Your task to perform on an android device: Open network settings Image 0: 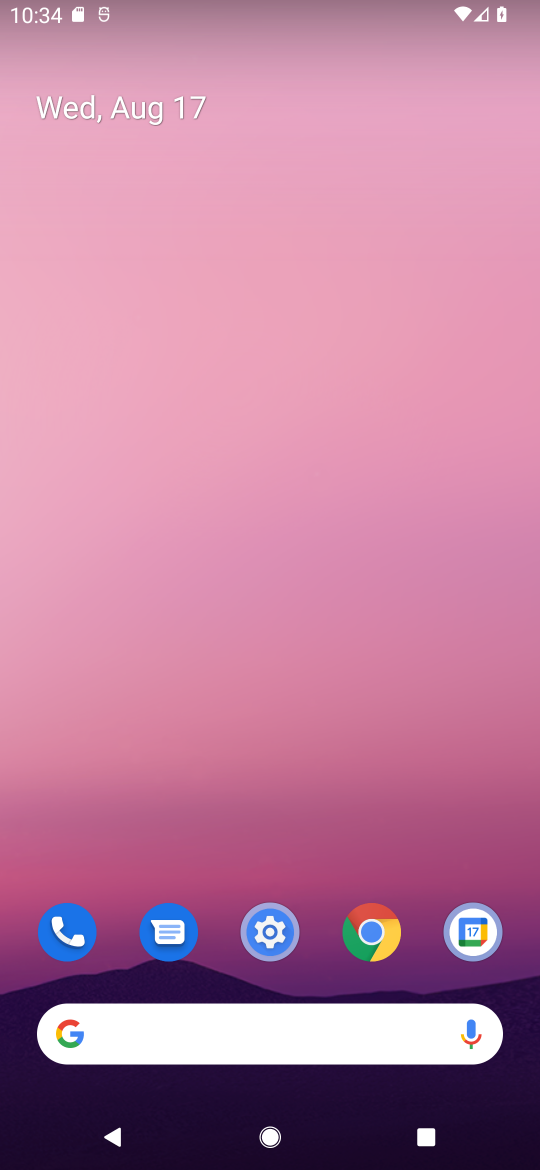
Step 0: drag from (327, 751) to (325, 98)
Your task to perform on an android device: Open network settings Image 1: 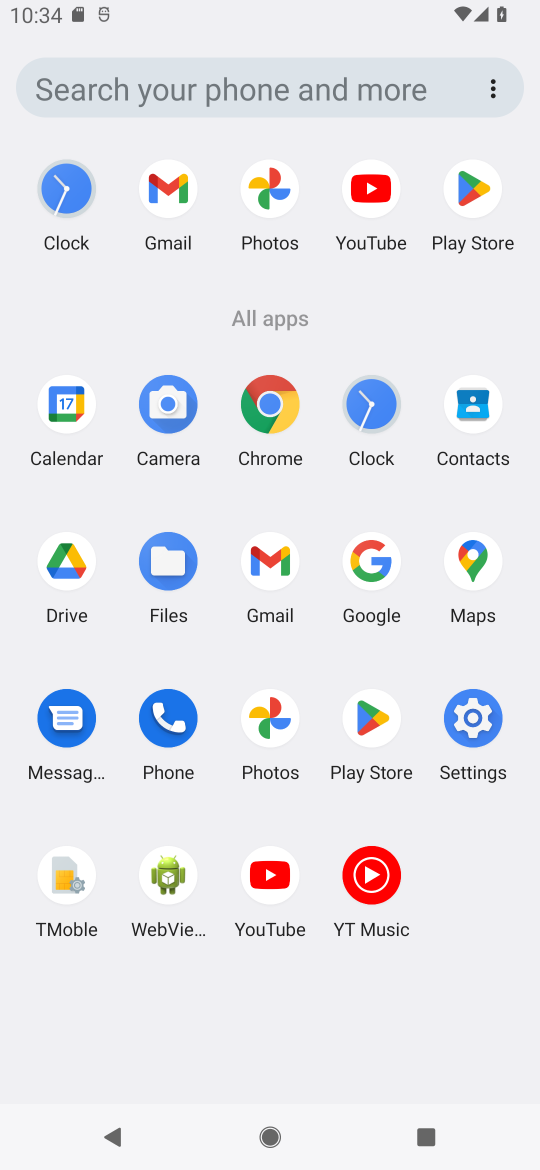
Step 1: click (474, 710)
Your task to perform on an android device: Open network settings Image 2: 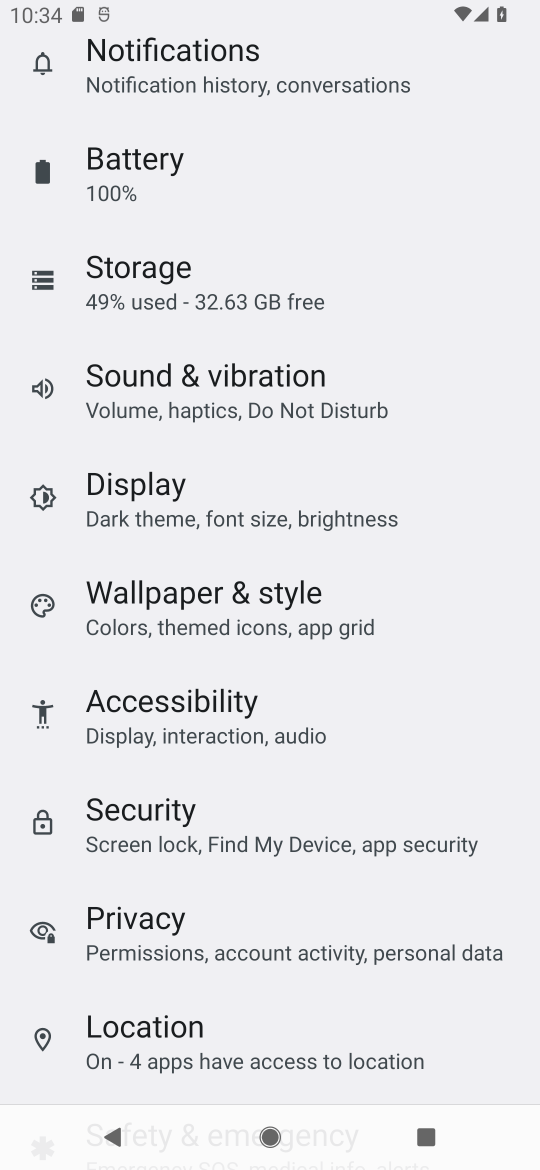
Step 2: drag from (241, 173) to (239, 463)
Your task to perform on an android device: Open network settings Image 3: 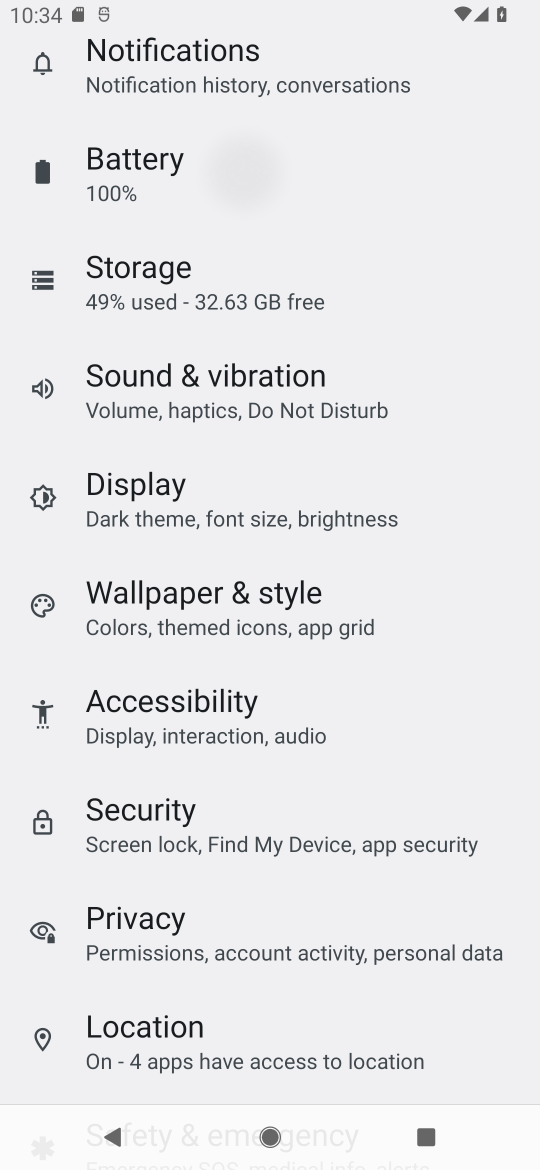
Step 3: drag from (239, 747) to (239, 865)
Your task to perform on an android device: Open network settings Image 4: 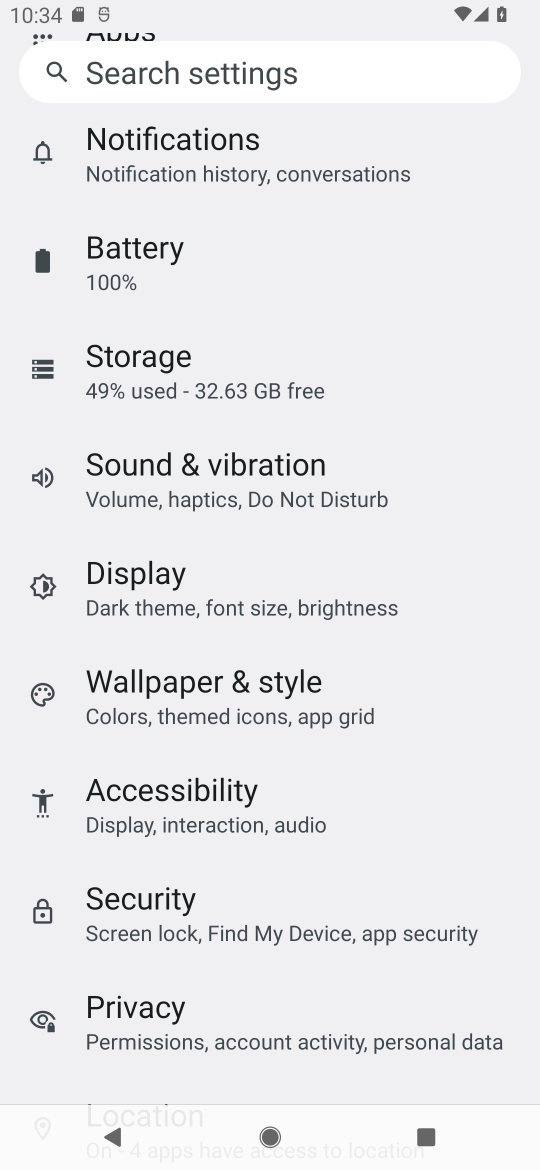
Step 4: drag from (123, 214) to (147, 857)
Your task to perform on an android device: Open network settings Image 5: 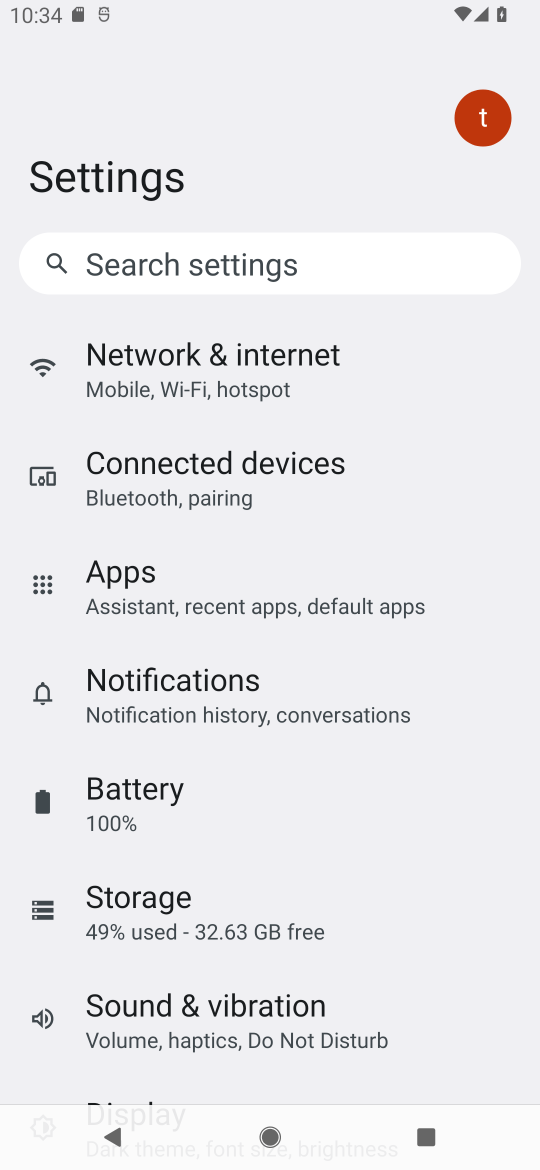
Step 5: click (218, 365)
Your task to perform on an android device: Open network settings Image 6: 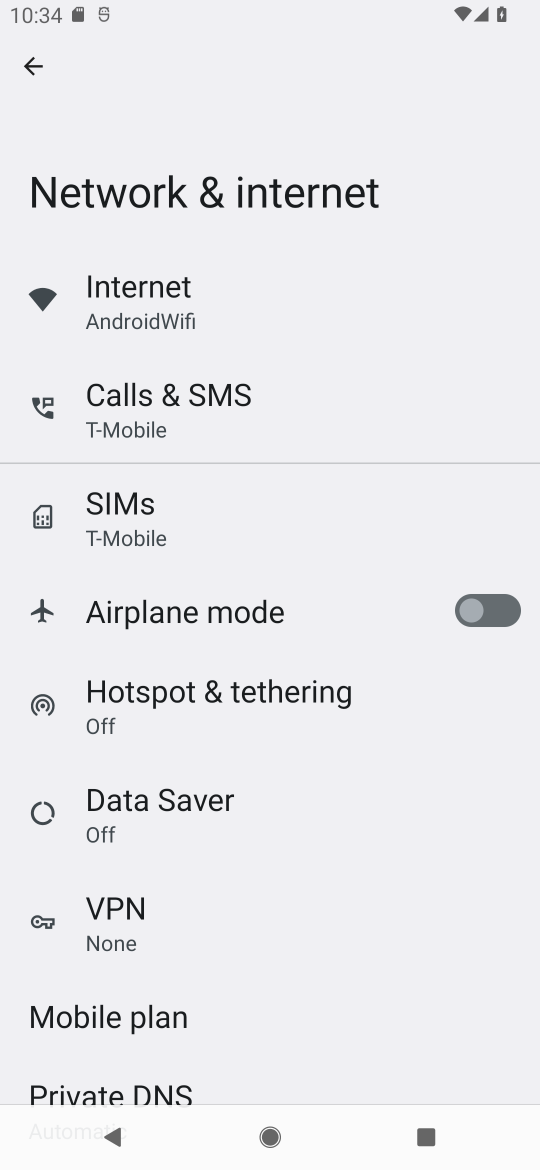
Step 6: task complete